Your task to perform on an android device: toggle pop-ups in chrome Image 0: 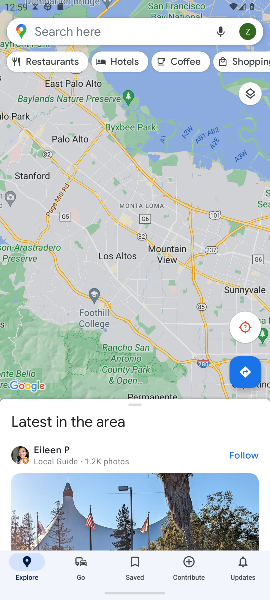
Step 0: press home button
Your task to perform on an android device: toggle pop-ups in chrome Image 1: 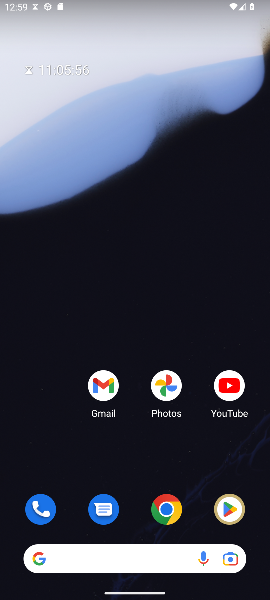
Step 1: click (173, 519)
Your task to perform on an android device: toggle pop-ups in chrome Image 2: 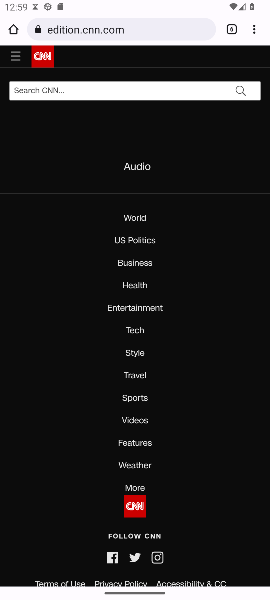
Step 2: click (253, 35)
Your task to perform on an android device: toggle pop-ups in chrome Image 3: 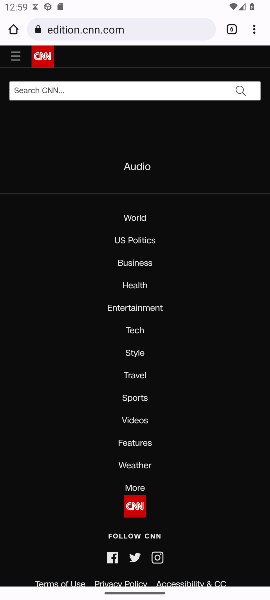
Step 3: drag from (253, 35) to (168, 379)
Your task to perform on an android device: toggle pop-ups in chrome Image 4: 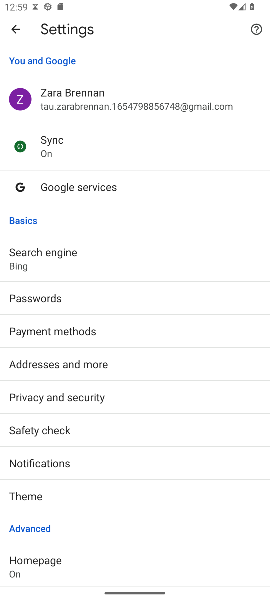
Step 4: drag from (119, 528) to (123, 210)
Your task to perform on an android device: toggle pop-ups in chrome Image 5: 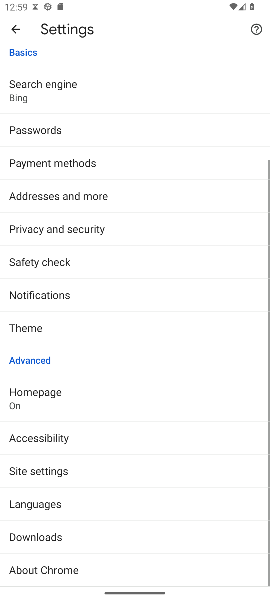
Step 5: click (38, 472)
Your task to perform on an android device: toggle pop-ups in chrome Image 6: 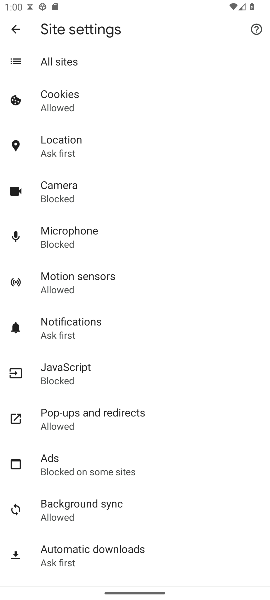
Step 6: click (69, 424)
Your task to perform on an android device: toggle pop-ups in chrome Image 7: 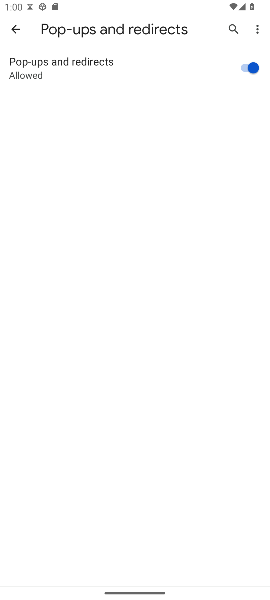
Step 7: click (256, 65)
Your task to perform on an android device: toggle pop-ups in chrome Image 8: 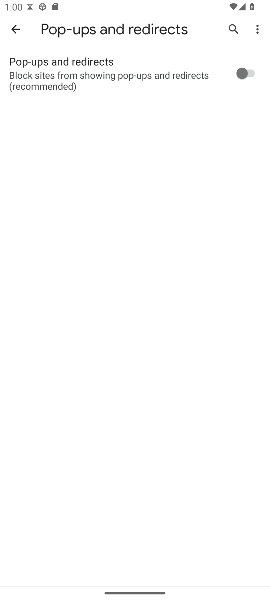
Step 8: task complete